Your task to perform on an android device: turn off airplane mode Image 0: 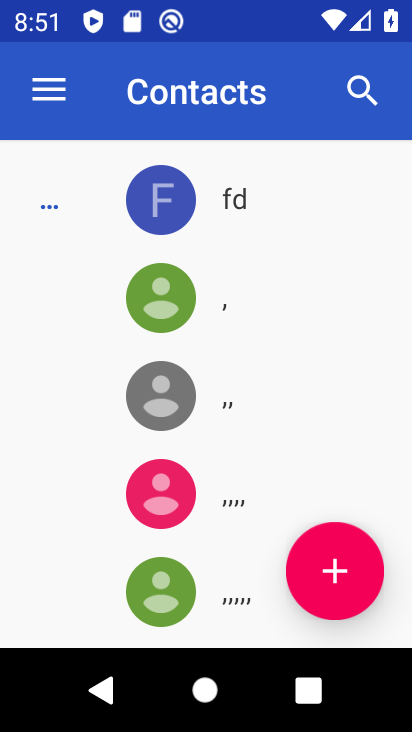
Step 0: drag from (284, 5) to (241, 450)
Your task to perform on an android device: turn off airplane mode Image 1: 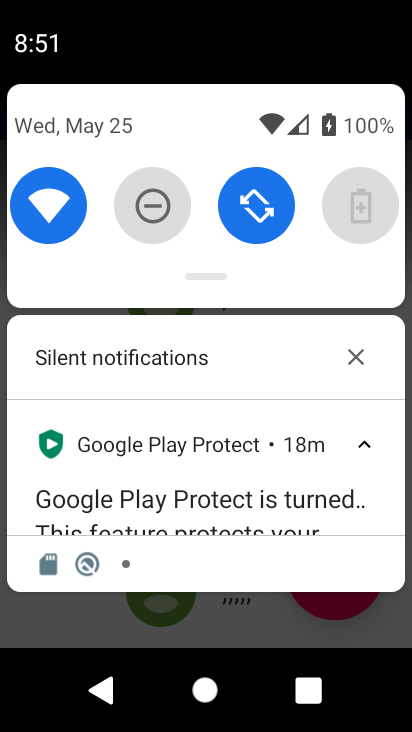
Step 1: task complete